Your task to perform on an android device: delete the emails in spam in the gmail app Image 0: 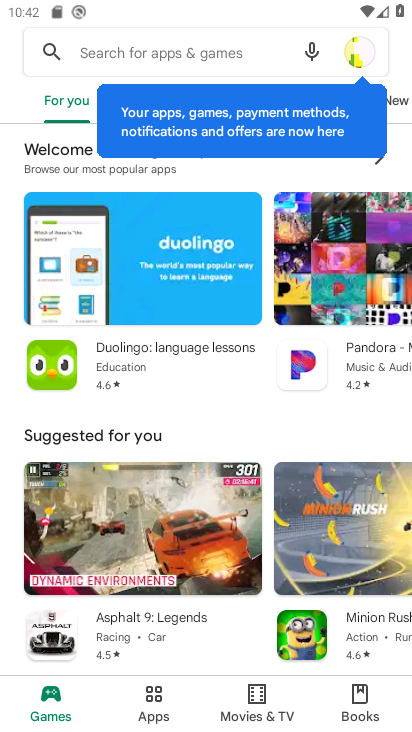
Step 0: press home button
Your task to perform on an android device: delete the emails in spam in the gmail app Image 1: 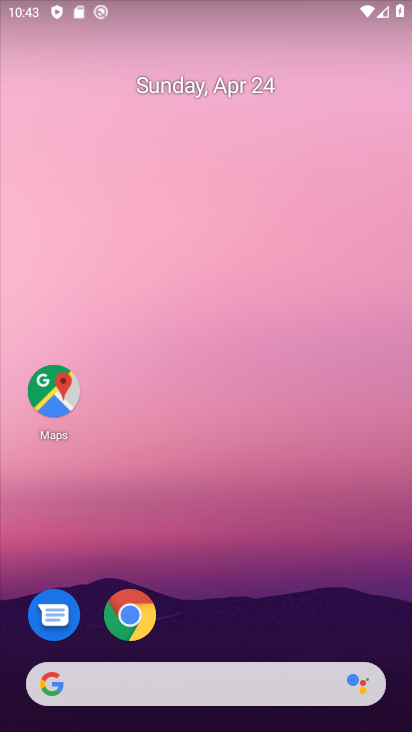
Step 1: drag from (198, 639) to (254, 57)
Your task to perform on an android device: delete the emails in spam in the gmail app Image 2: 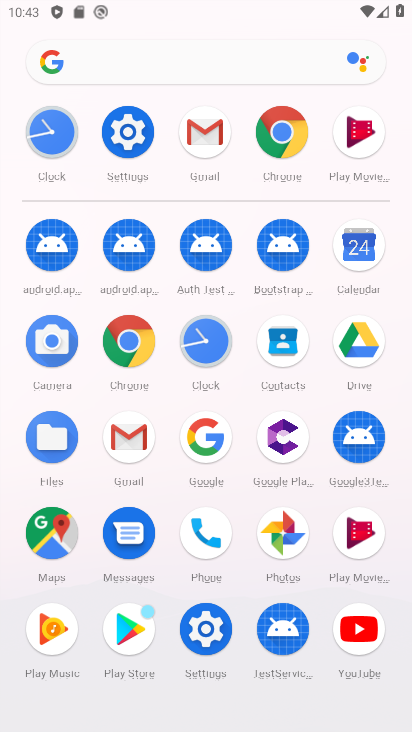
Step 2: click (124, 428)
Your task to perform on an android device: delete the emails in spam in the gmail app Image 3: 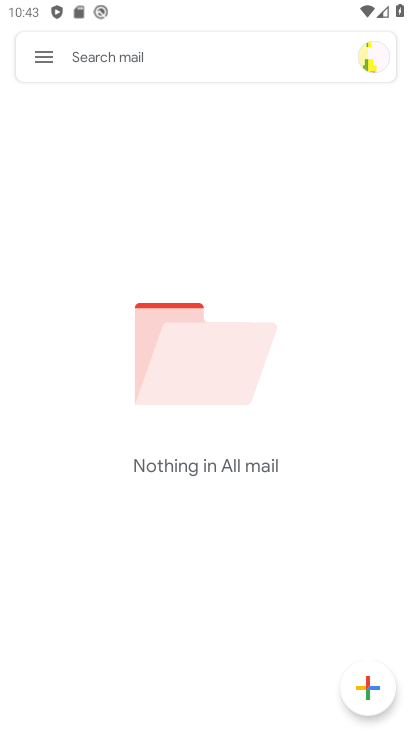
Step 3: click (31, 56)
Your task to perform on an android device: delete the emails in spam in the gmail app Image 4: 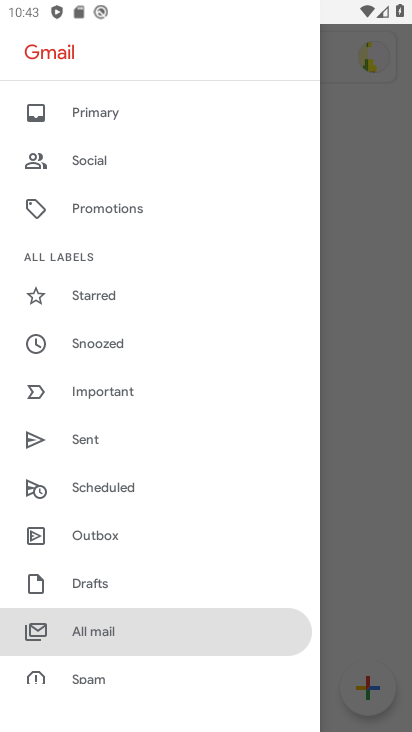
Step 4: task complete